Your task to perform on an android device: check battery use Image 0: 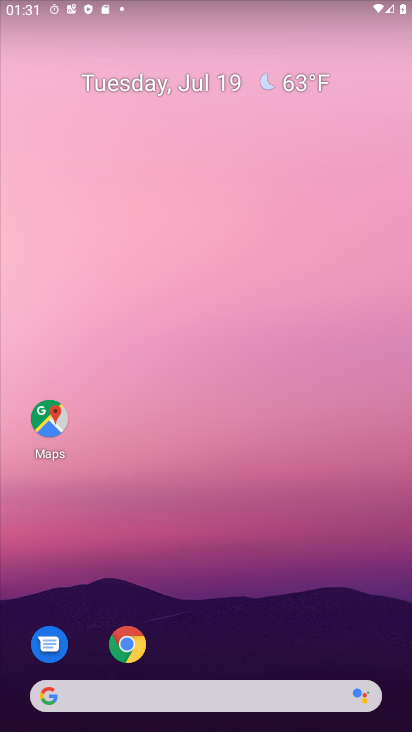
Step 0: drag from (210, 707) to (160, 112)
Your task to perform on an android device: check battery use Image 1: 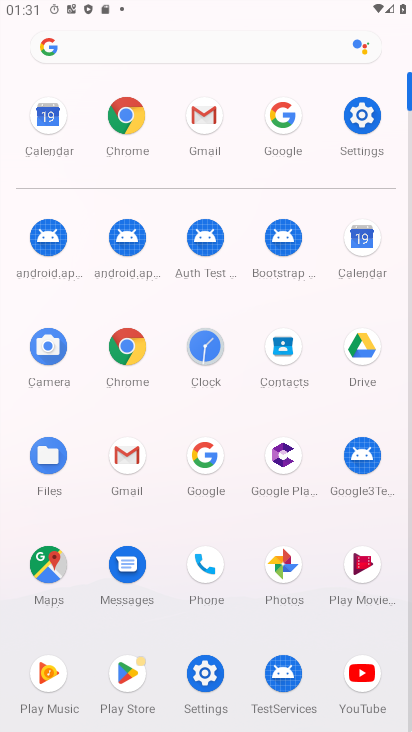
Step 1: click (358, 111)
Your task to perform on an android device: check battery use Image 2: 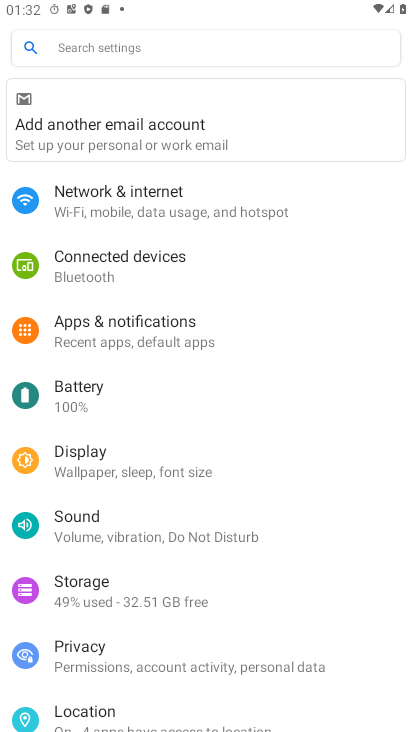
Step 2: click (62, 392)
Your task to perform on an android device: check battery use Image 3: 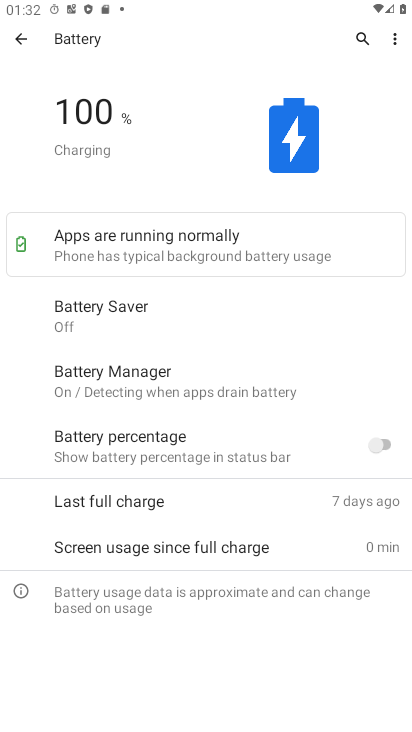
Step 3: click (394, 41)
Your task to perform on an android device: check battery use Image 4: 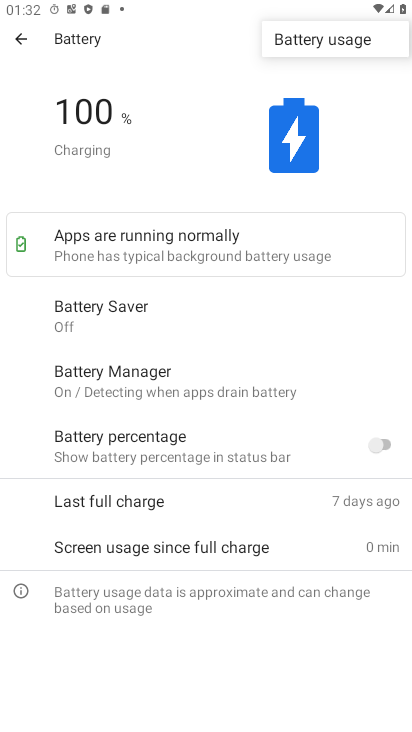
Step 4: click (352, 38)
Your task to perform on an android device: check battery use Image 5: 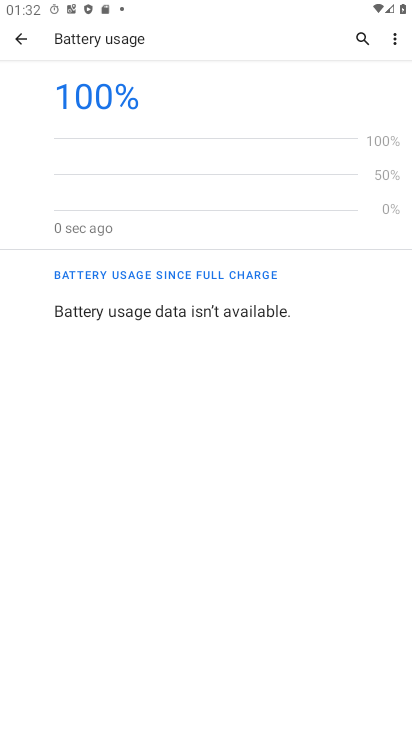
Step 5: task complete